Your task to perform on an android device: Open sound settings Image 0: 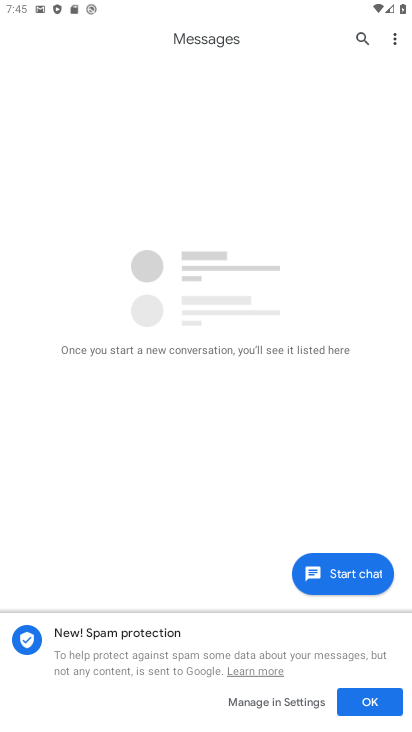
Step 0: drag from (251, 579) to (244, 166)
Your task to perform on an android device: Open sound settings Image 1: 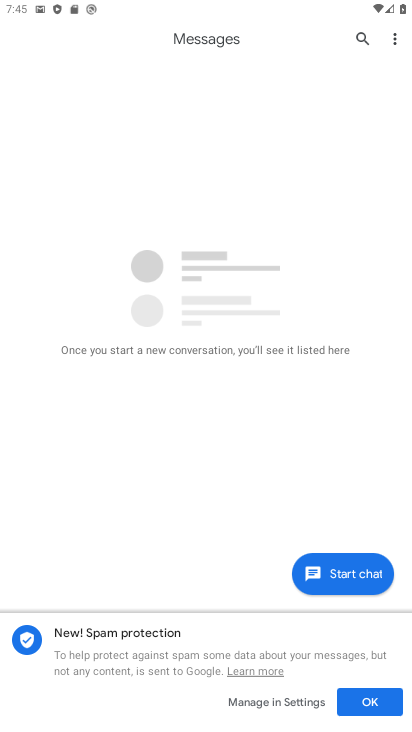
Step 1: press home button
Your task to perform on an android device: Open sound settings Image 2: 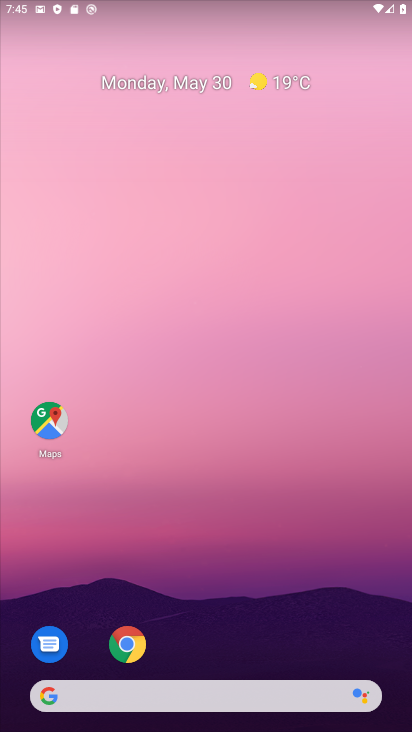
Step 2: click (184, 581)
Your task to perform on an android device: Open sound settings Image 3: 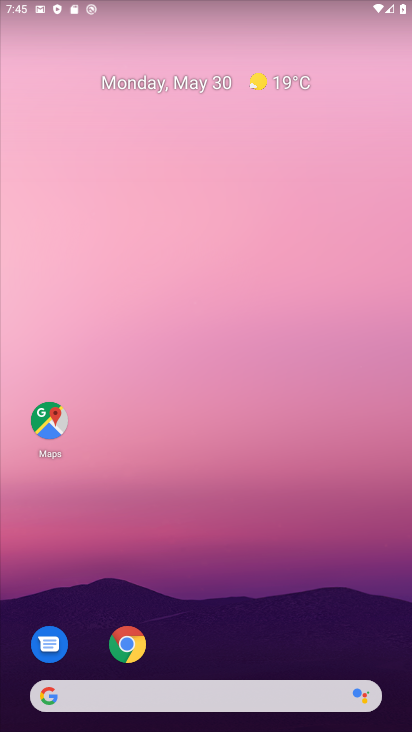
Step 3: drag from (197, 644) to (196, 53)
Your task to perform on an android device: Open sound settings Image 4: 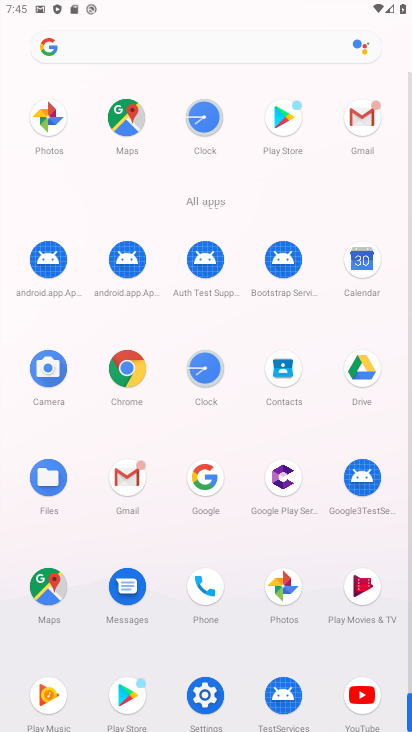
Step 4: click (203, 676)
Your task to perform on an android device: Open sound settings Image 5: 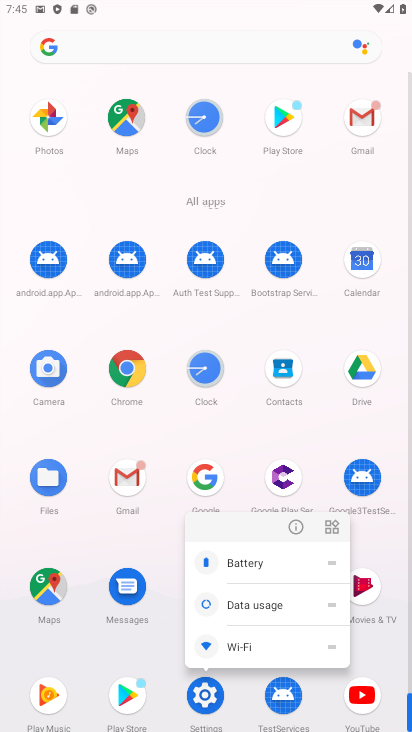
Step 5: click (282, 514)
Your task to perform on an android device: Open sound settings Image 6: 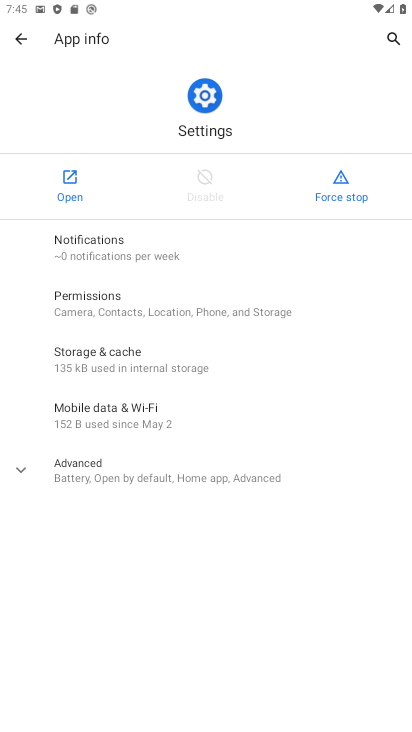
Step 6: click (82, 175)
Your task to perform on an android device: Open sound settings Image 7: 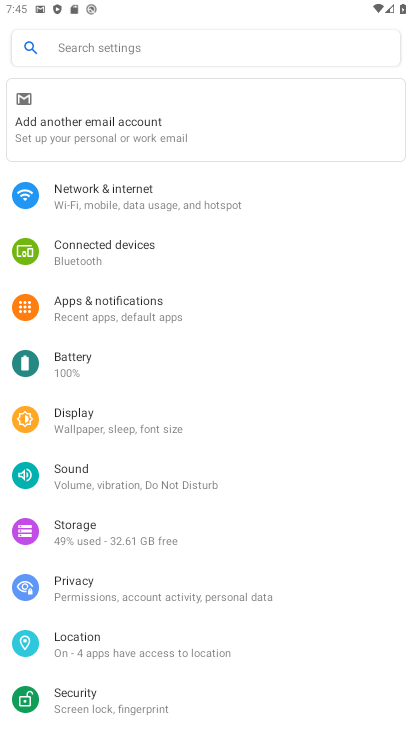
Step 7: click (103, 485)
Your task to perform on an android device: Open sound settings Image 8: 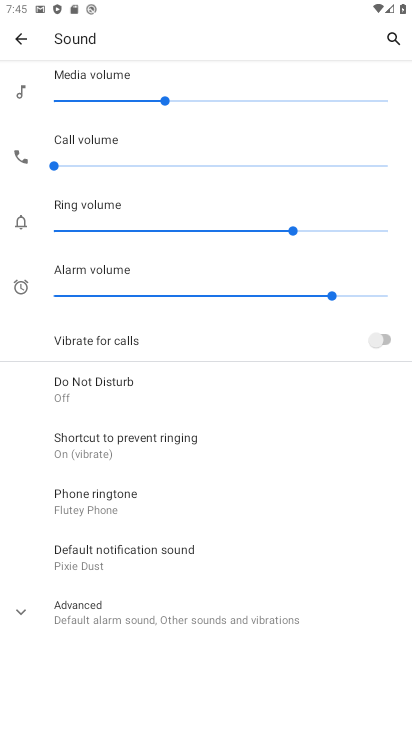
Step 8: task complete